Your task to perform on an android device: Open maps Image 0: 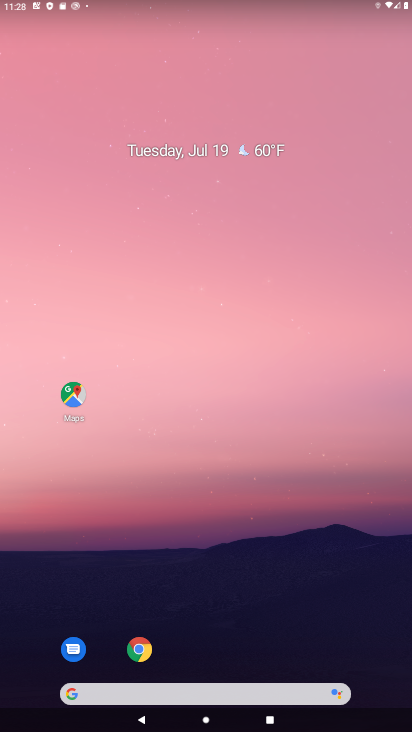
Step 0: click (75, 392)
Your task to perform on an android device: Open maps Image 1: 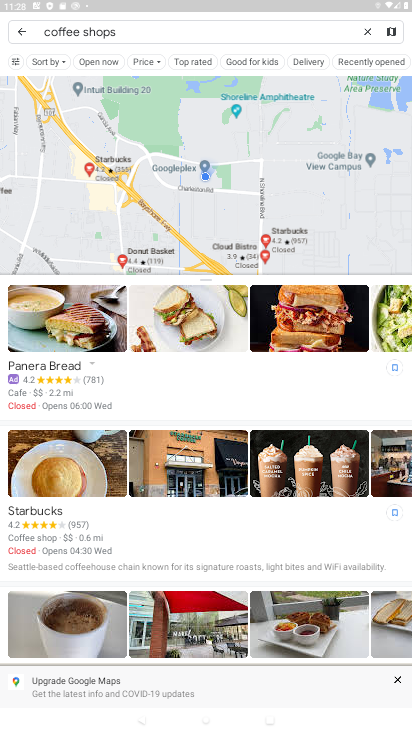
Step 1: task complete